Your task to perform on an android device: Open Chrome and go to the settings page Image 0: 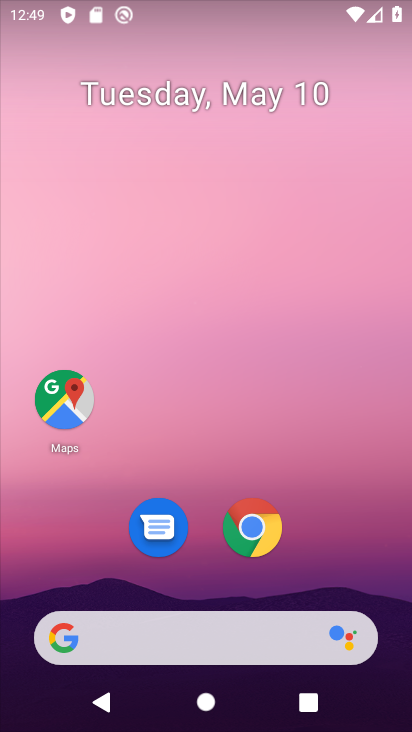
Step 0: click (270, 534)
Your task to perform on an android device: Open Chrome and go to the settings page Image 1: 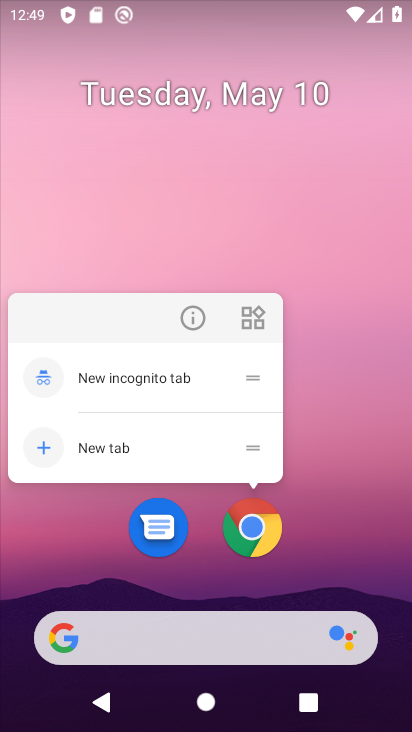
Step 1: click (246, 529)
Your task to perform on an android device: Open Chrome and go to the settings page Image 2: 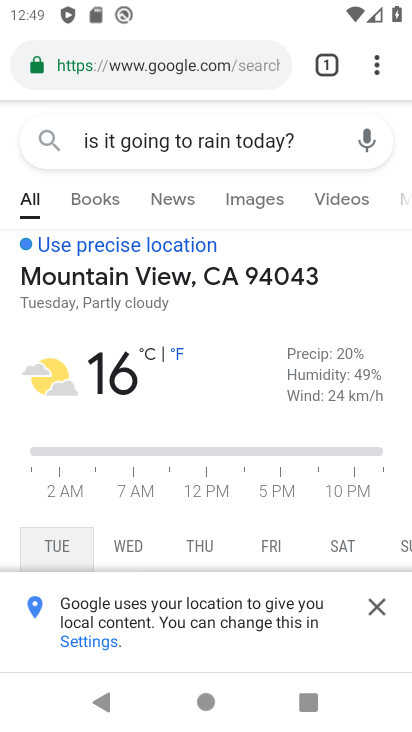
Step 2: task complete